Your task to perform on an android device: open device folders in google photos Image 0: 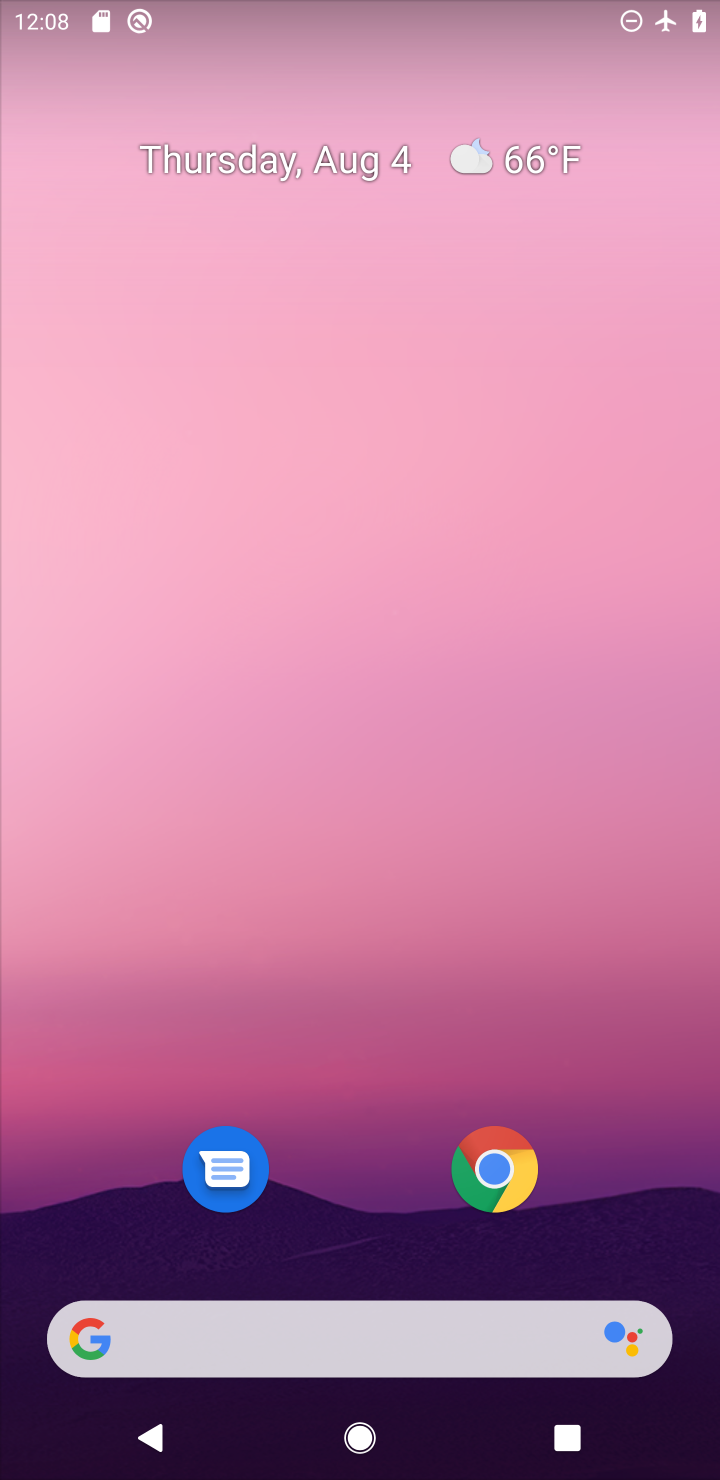
Step 0: drag from (386, 847) to (420, 79)
Your task to perform on an android device: open device folders in google photos Image 1: 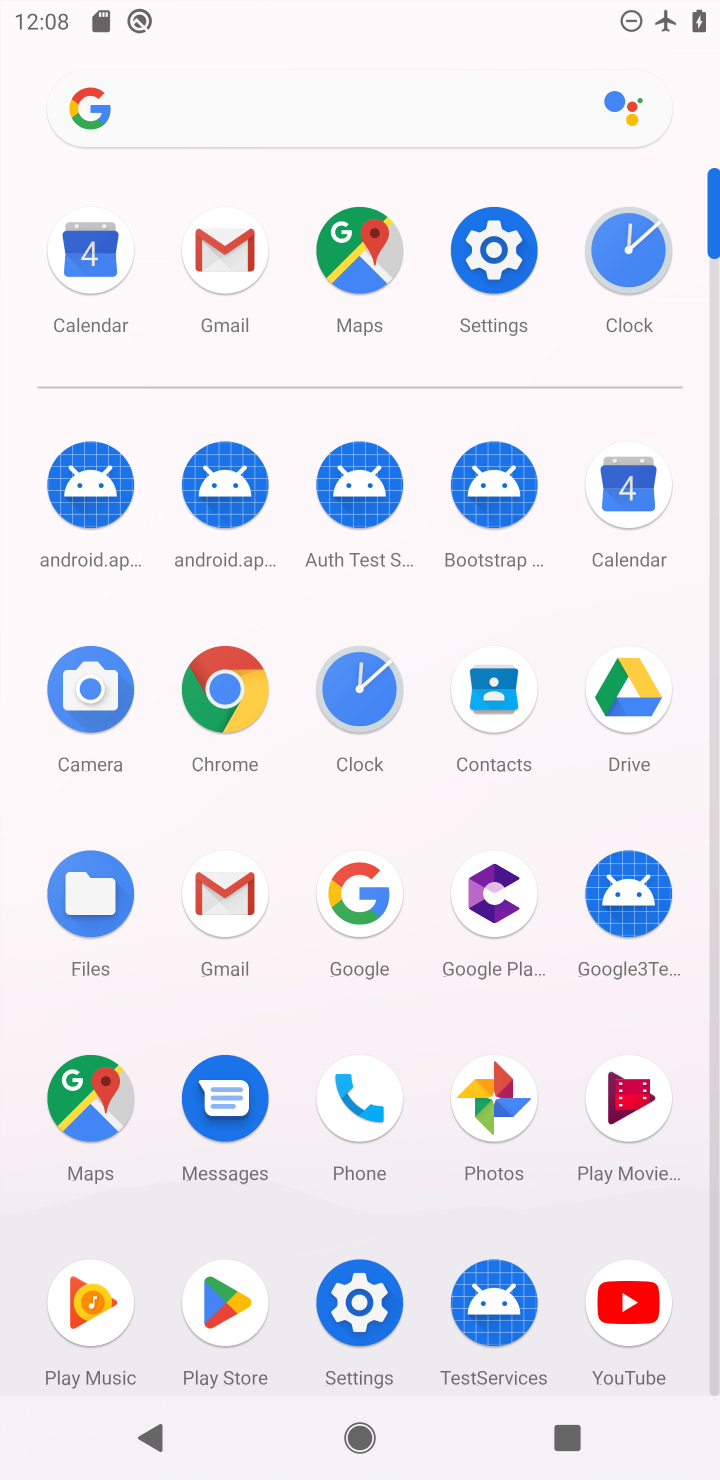
Step 1: click (497, 1100)
Your task to perform on an android device: open device folders in google photos Image 2: 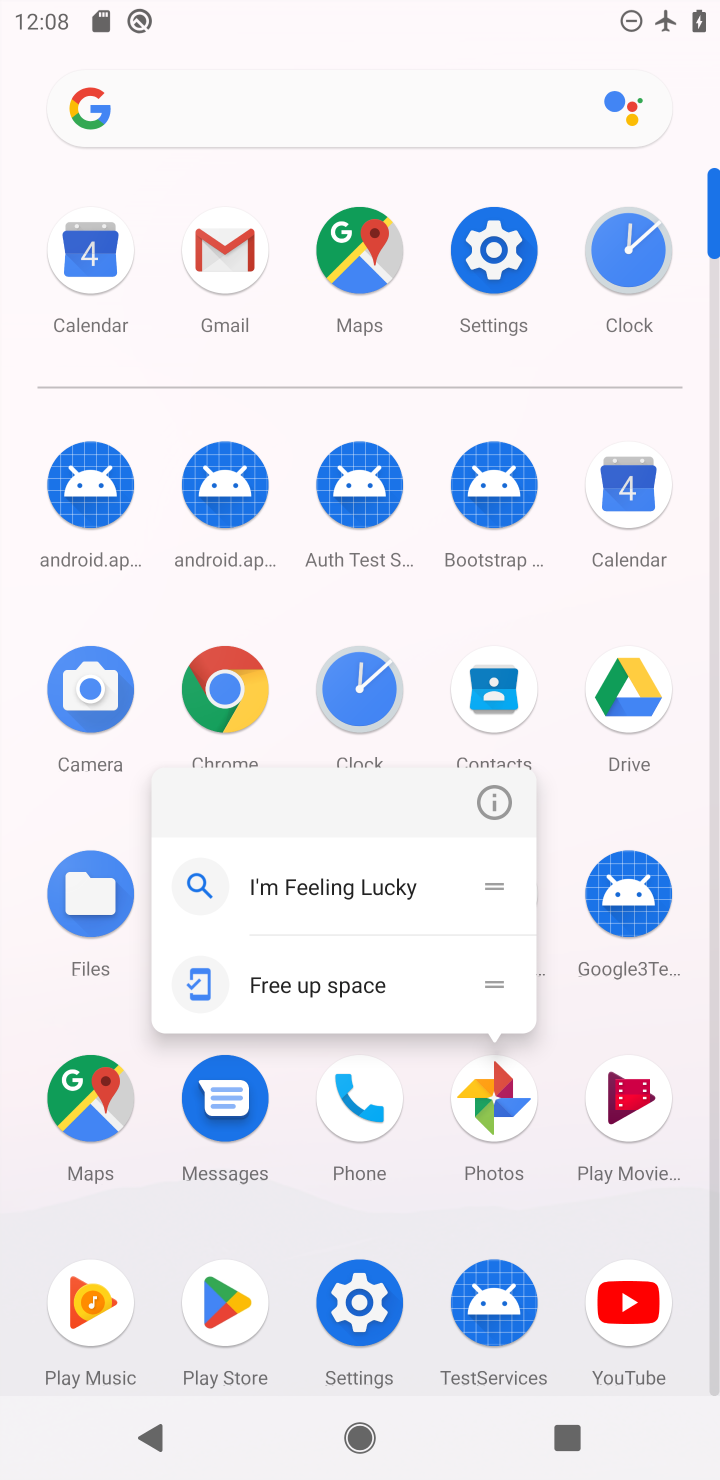
Step 2: click (486, 1100)
Your task to perform on an android device: open device folders in google photos Image 3: 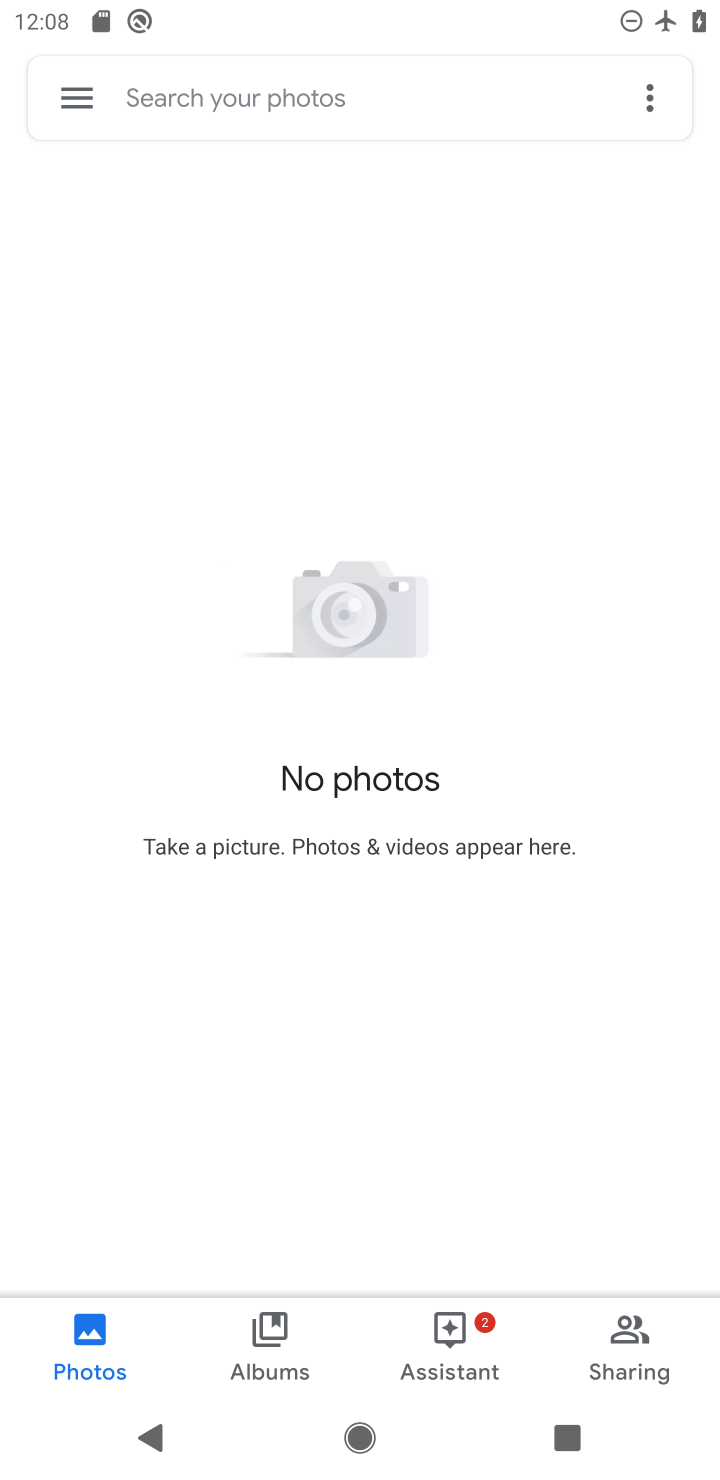
Step 3: click (74, 93)
Your task to perform on an android device: open device folders in google photos Image 4: 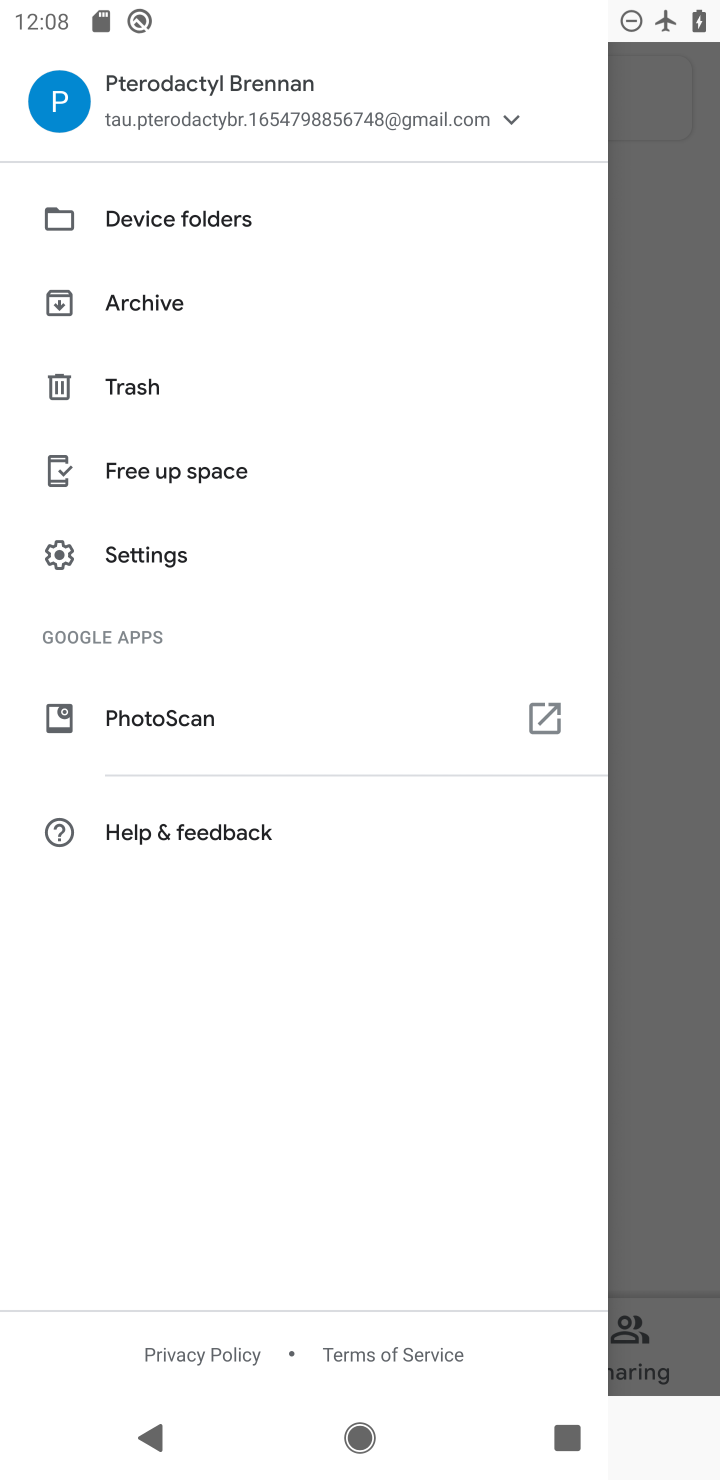
Step 4: click (128, 211)
Your task to perform on an android device: open device folders in google photos Image 5: 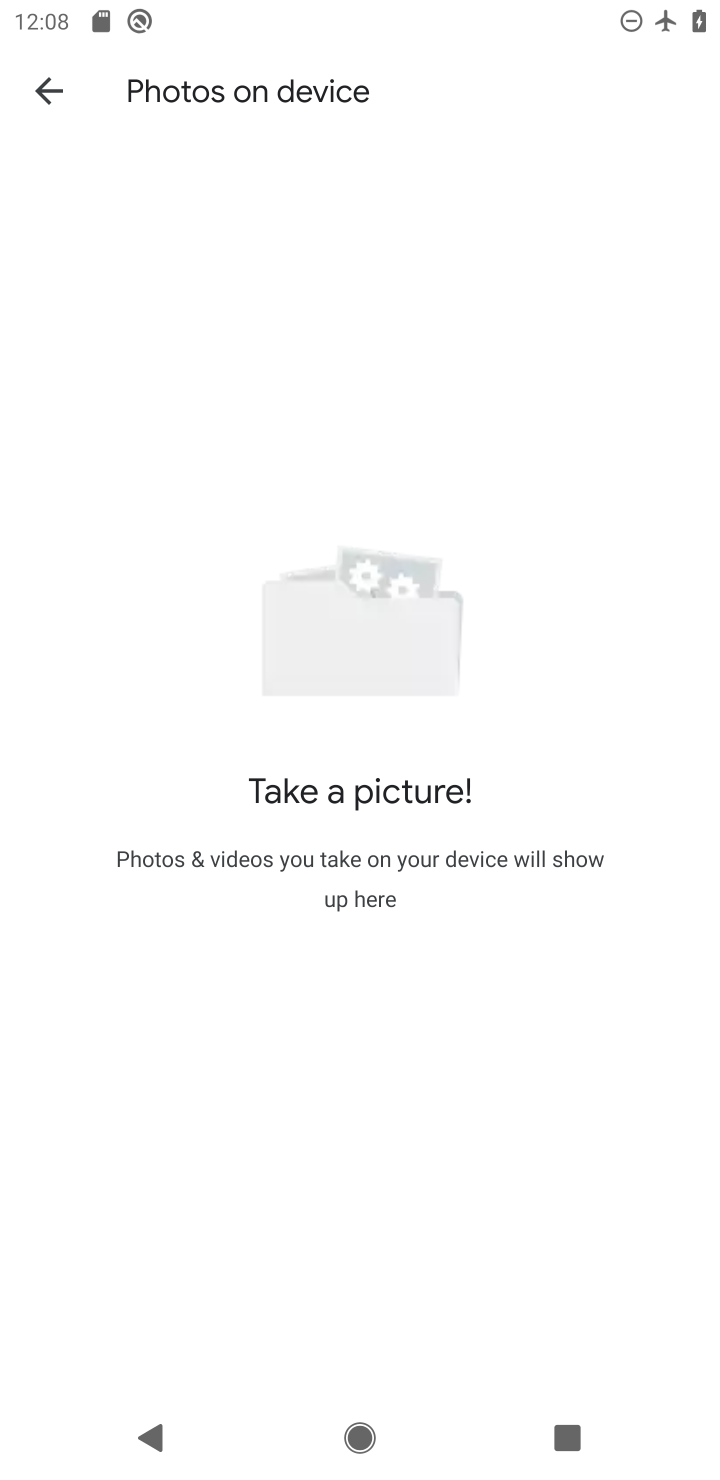
Step 5: task complete